Your task to perform on an android device: Search for Italian restaurants on Maps Image 0: 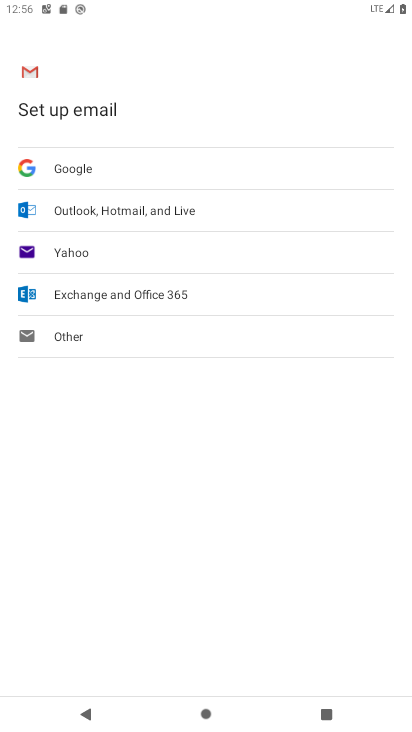
Step 0: press home button
Your task to perform on an android device: Search for Italian restaurants on Maps Image 1: 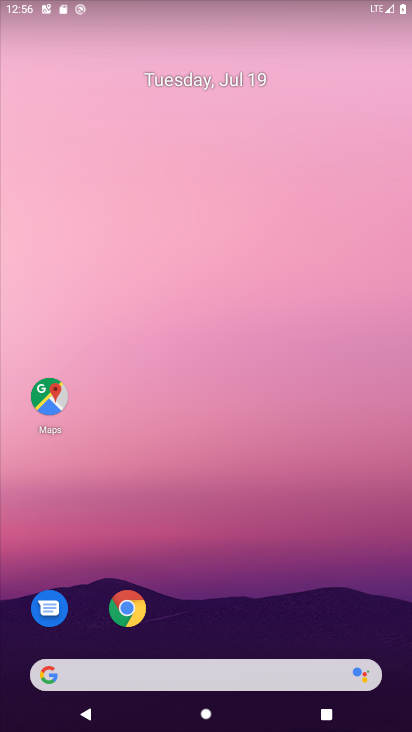
Step 1: drag from (251, 615) to (227, 153)
Your task to perform on an android device: Search for Italian restaurants on Maps Image 2: 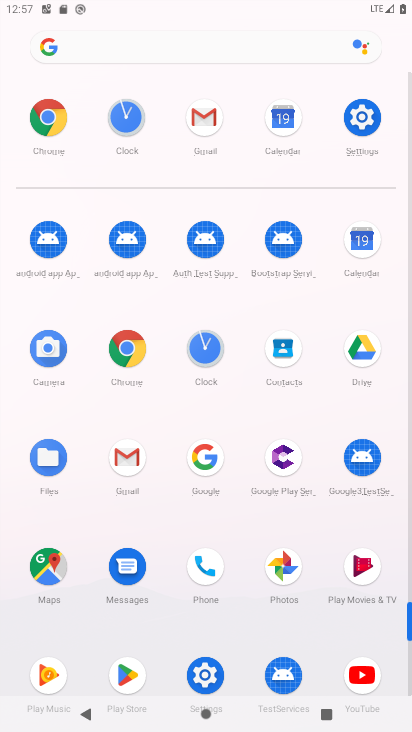
Step 2: click (49, 576)
Your task to perform on an android device: Search for Italian restaurants on Maps Image 3: 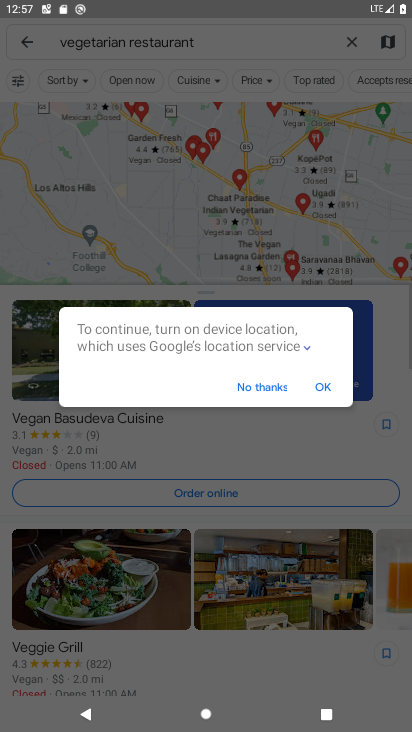
Step 3: click (313, 387)
Your task to perform on an android device: Search for Italian restaurants on Maps Image 4: 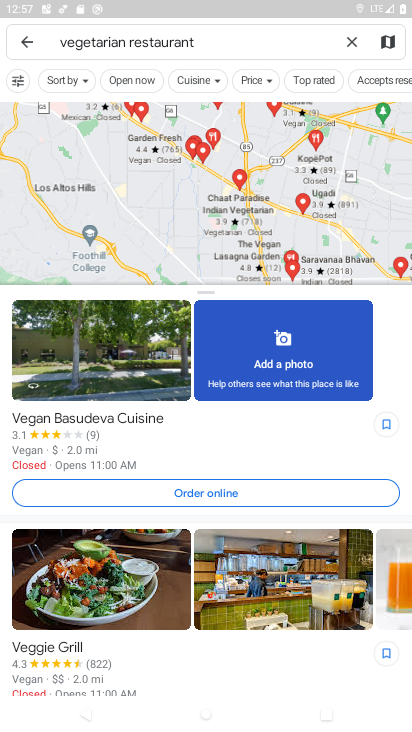
Step 4: click (349, 44)
Your task to perform on an android device: Search for Italian restaurants on Maps Image 5: 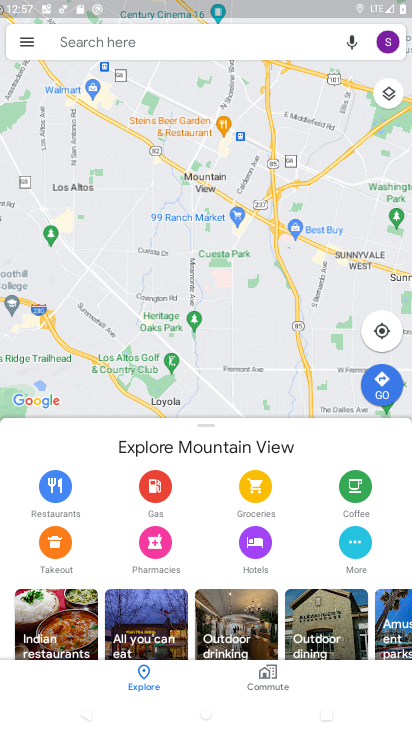
Step 5: click (142, 42)
Your task to perform on an android device: Search for Italian restaurants on Maps Image 6: 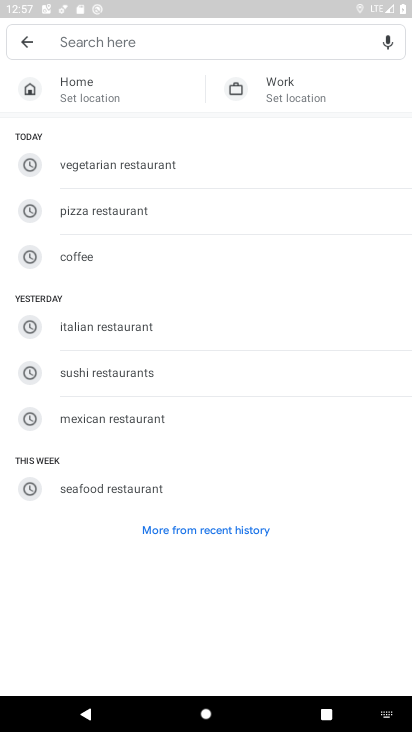
Step 6: click (156, 330)
Your task to perform on an android device: Search for Italian restaurants on Maps Image 7: 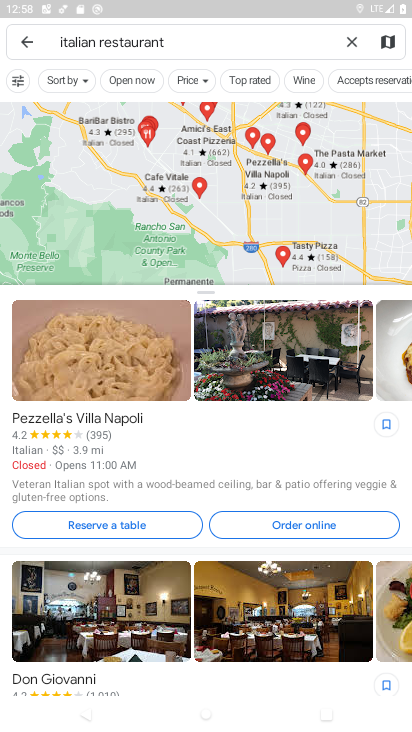
Step 7: task complete